Your task to perform on an android device: Open Amazon Image 0: 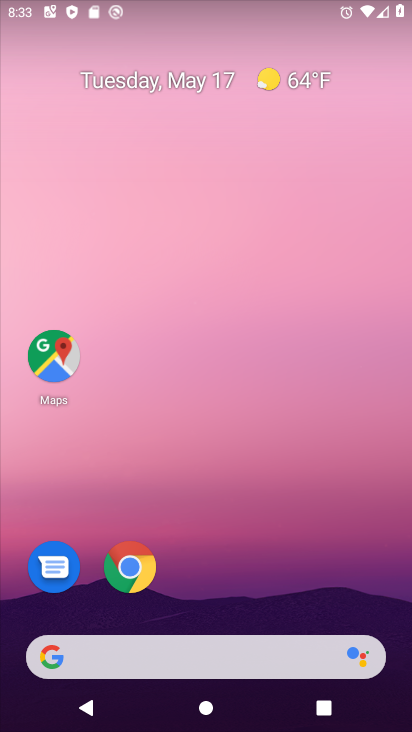
Step 0: drag from (360, 606) to (224, 71)
Your task to perform on an android device: Open Amazon Image 1: 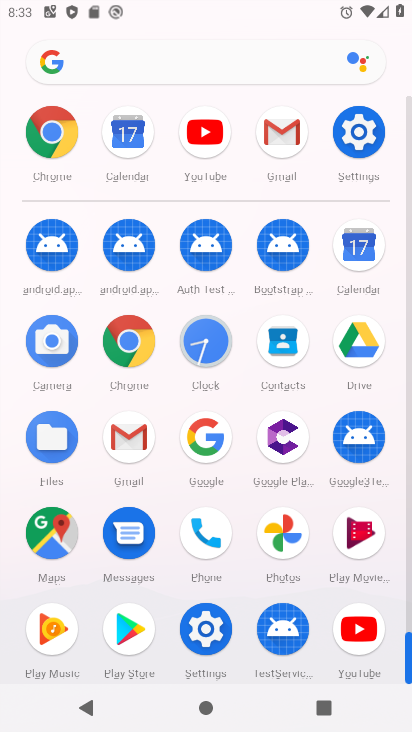
Step 1: click (208, 451)
Your task to perform on an android device: Open Amazon Image 2: 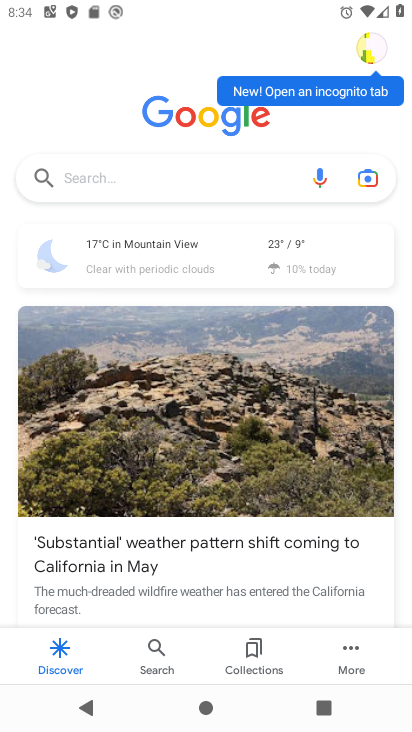
Step 2: click (140, 189)
Your task to perform on an android device: Open Amazon Image 3: 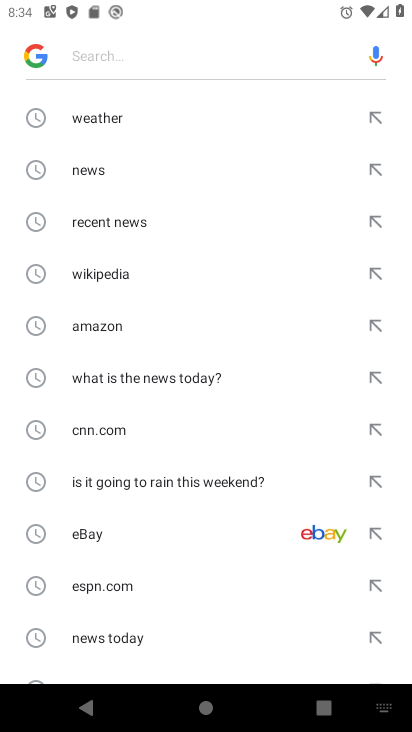
Step 3: drag from (134, 595) to (164, 158)
Your task to perform on an android device: Open Amazon Image 4: 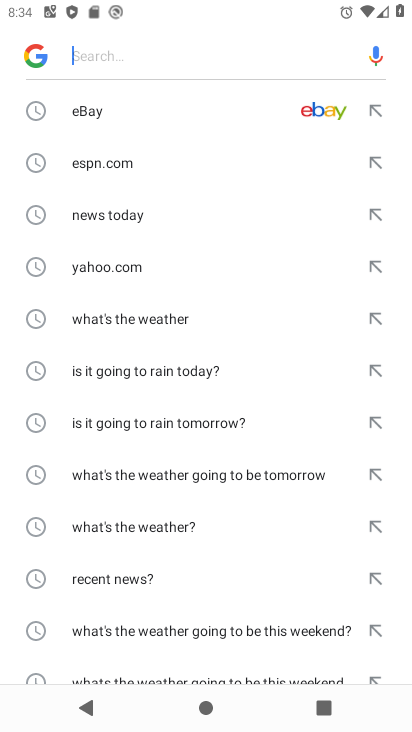
Step 4: drag from (176, 593) to (157, 187)
Your task to perform on an android device: Open Amazon Image 5: 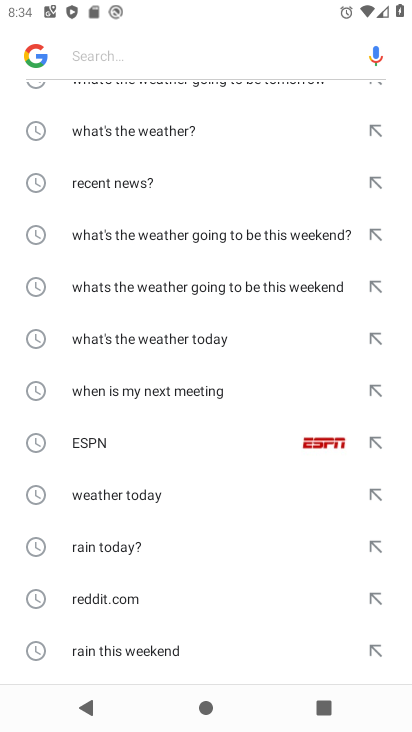
Step 5: drag from (99, 589) to (114, 290)
Your task to perform on an android device: Open Amazon Image 6: 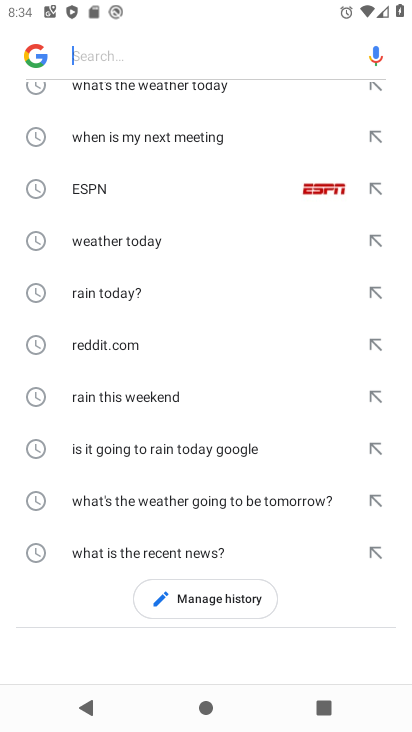
Step 6: press home button
Your task to perform on an android device: Open Amazon Image 7: 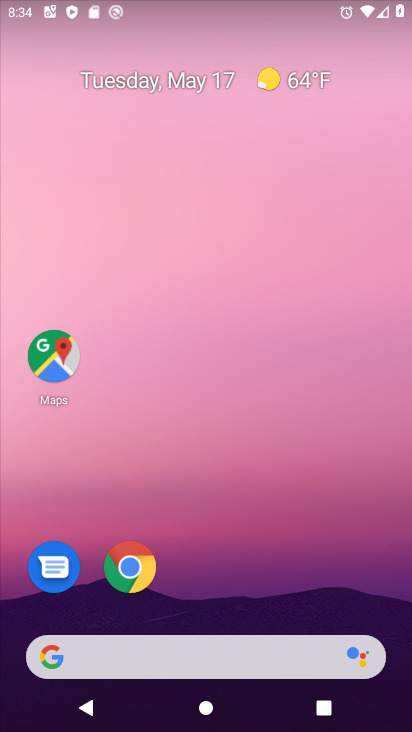
Step 7: click (145, 570)
Your task to perform on an android device: Open Amazon Image 8: 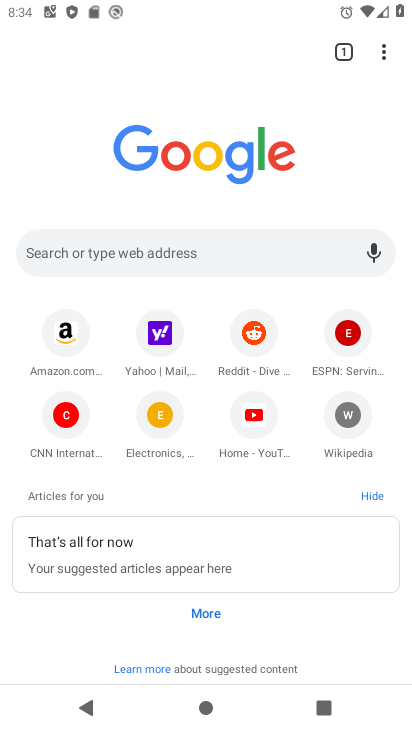
Step 8: click (51, 338)
Your task to perform on an android device: Open Amazon Image 9: 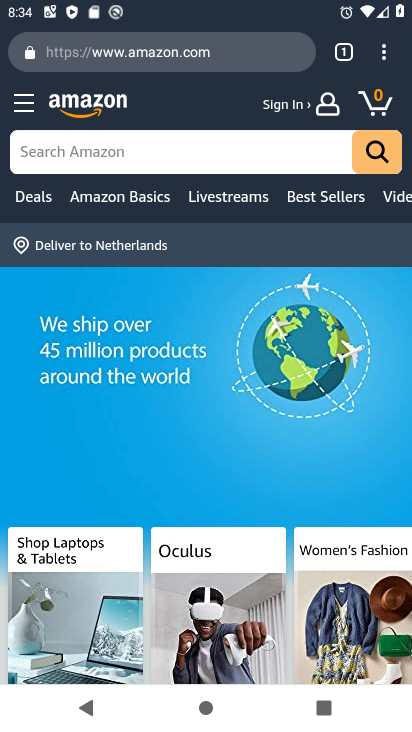
Step 9: task complete